Your task to perform on an android device: check android version Image 0: 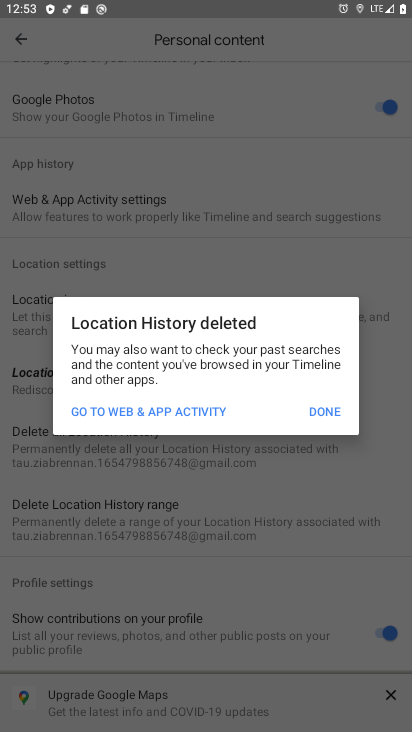
Step 0: press home button
Your task to perform on an android device: check android version Image 1: 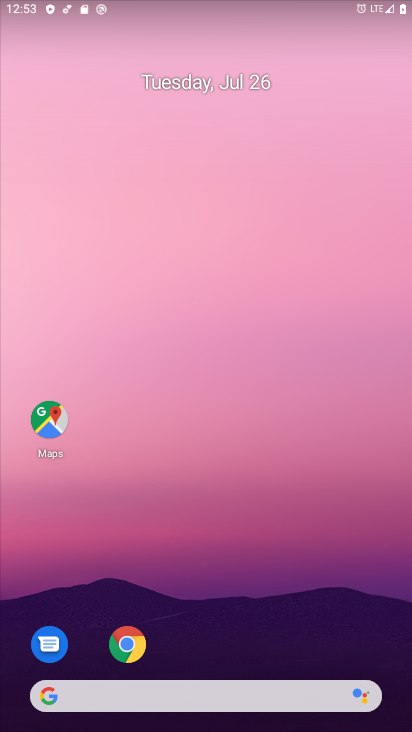
Step 1: drag from (169, 609) to (197, 271)
Your task to perform on an android device: check android version Image 2: 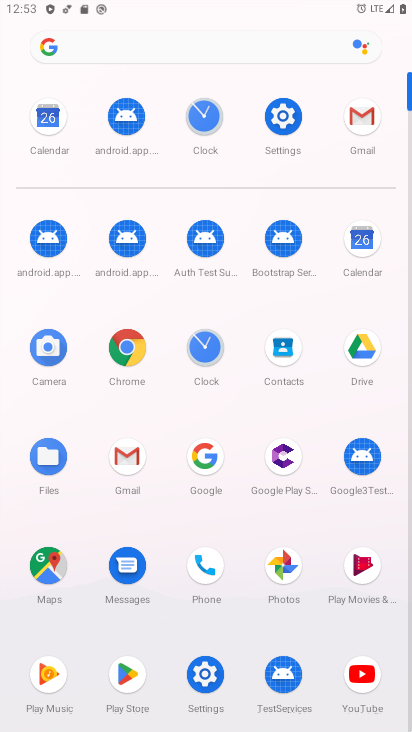
Step 2: click (294, 116)
Your task to perform on an android device: check android version Image 3: 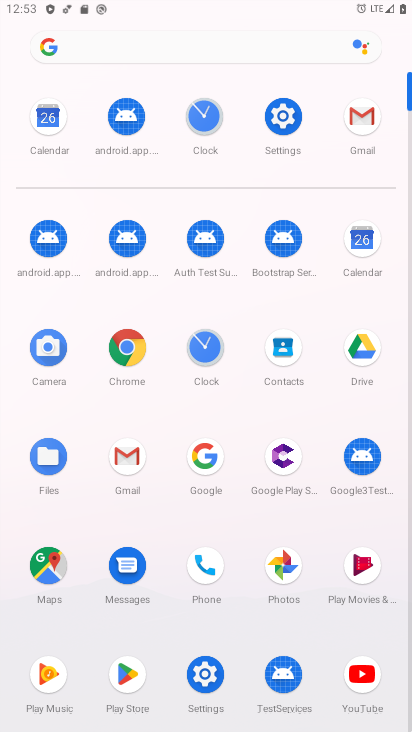
Step 3: click (294, 116)
Your task to perform on an android device: check android version Image 4: 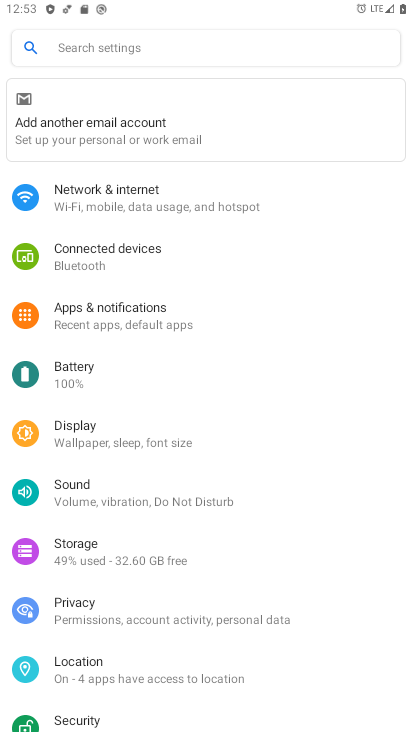
Step 4: drag from (290, 674) to (280, 5)
Your task to perform on an android device: check android version Image 5: 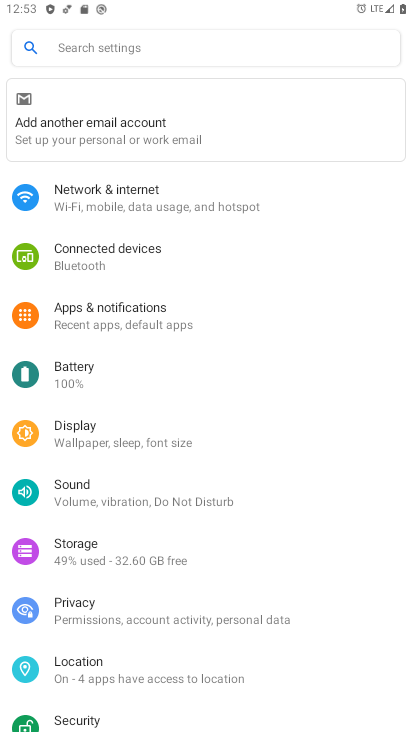
Step 5: drag from (187, 696) to (253, 68)
Your task to perform on an android device: check android version Image 6: 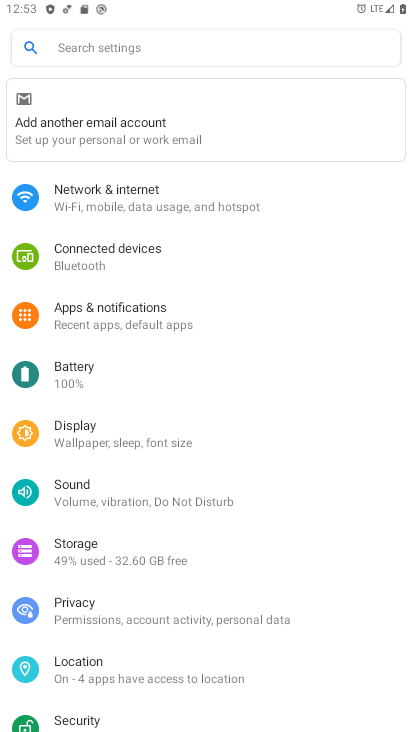
Step 6: drag from (167, 696) to (277, 49)
Your task to perform on an android device: check android version Image 7: 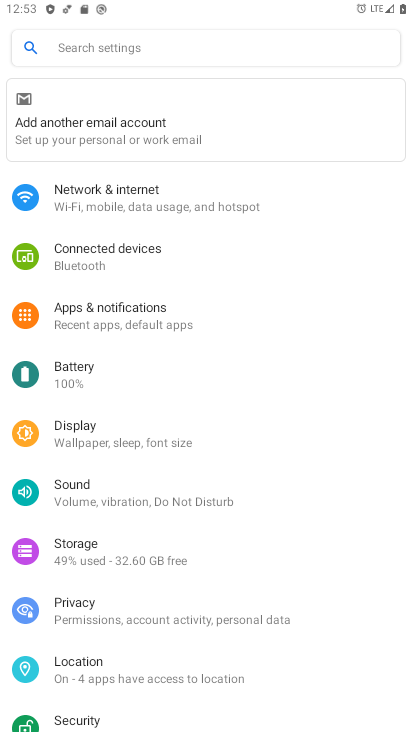
Step 7: drag from (329, 504) to (327, 113)
Your task to perform on an android device: check android version Image 8: 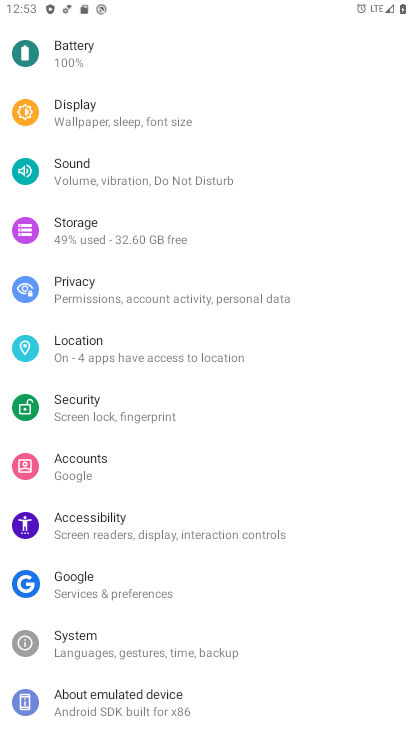
Step 8: drag from (174, 667) to (234, 202)
Your task to perform on an android device: check android version Image 9: 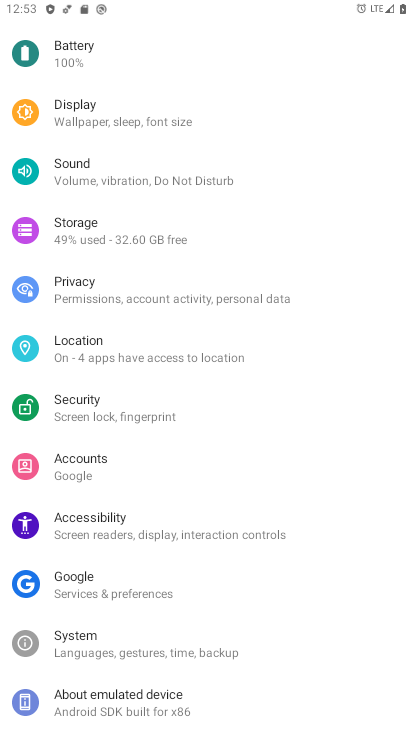
Step 9: click (169, 697)
Your task to perform on an android device: check android version Image 10: 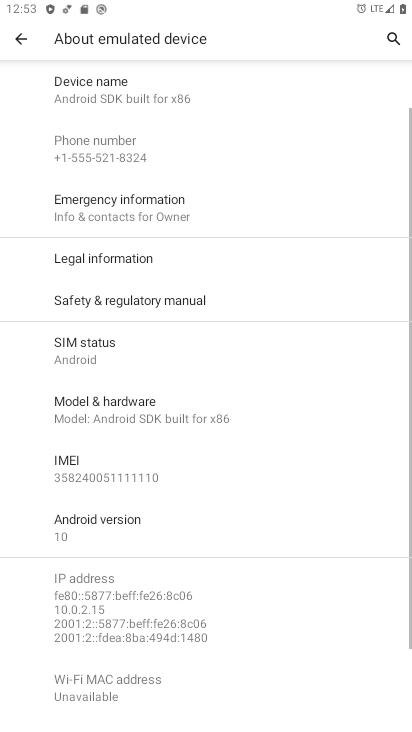
Step 10: task complete